Your task to perform on an android device: Open the web browser Image 0: 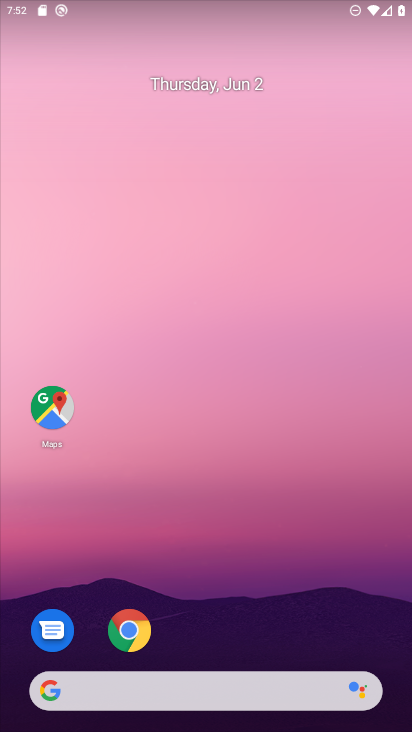
Step 0: click (132, 635)
Your task to perform on an android device: Open the web browser Image 1: 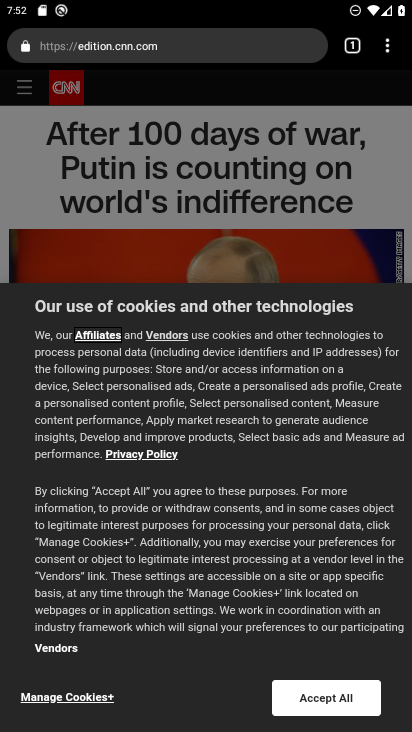
Step 1: click (328, 715)
Your task to perform on an android device: Open the web browser Image 2: 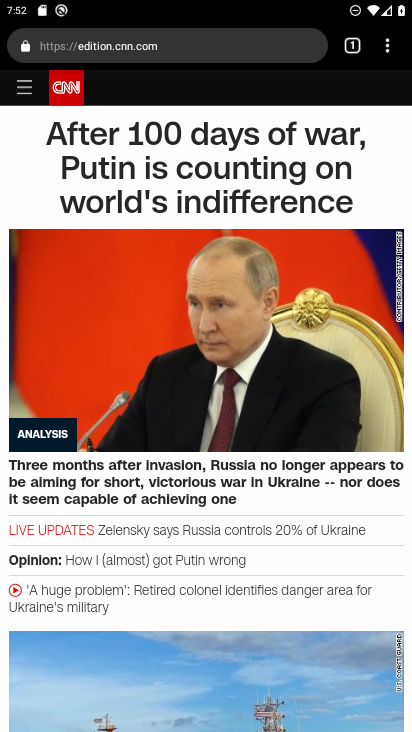
Step 2: task complete